Your task to perform on an android device: toggle show notifications on the lock screen Image 0: 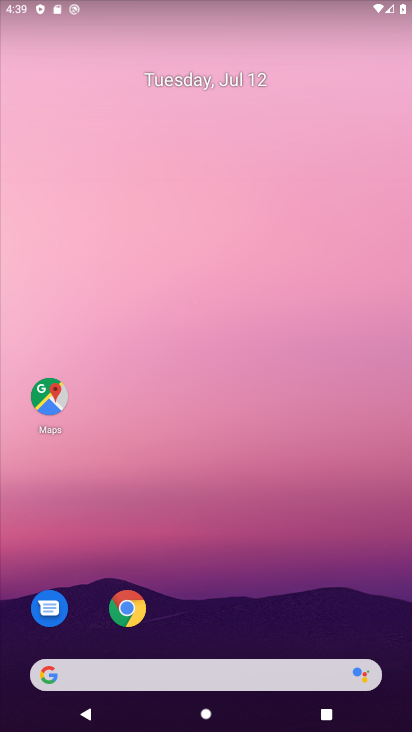
Step 0: drag from (207, 633) to (283, 118)
Your task to perform on an android device: toggle show notifications on the lock screen Image 1: 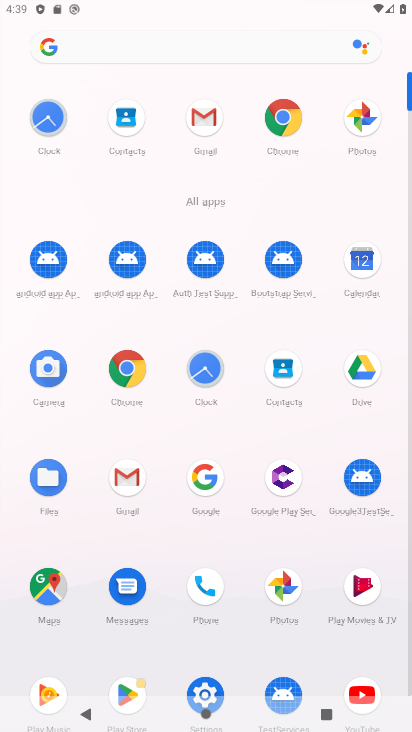
Step 1: click (207, 674)
Your task to perform on an android device: toggle show notifications on the lock screen Image 2: 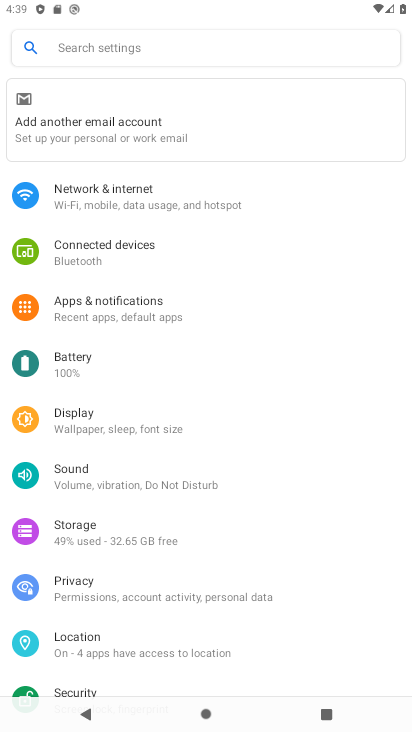
Step 2: click (173, 302)
Your task to perform on an android device: toggle show notifications on the lock screen Image 3: 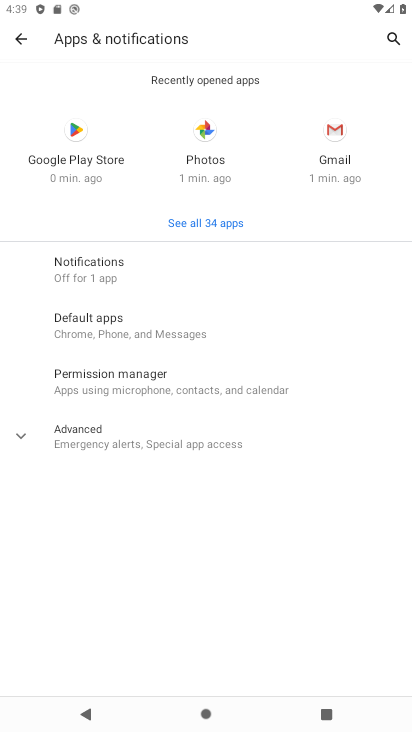
Step 3: click (119, 292)
Your task to perform on an android device: toggle show notifications on the lock screen Image 4: 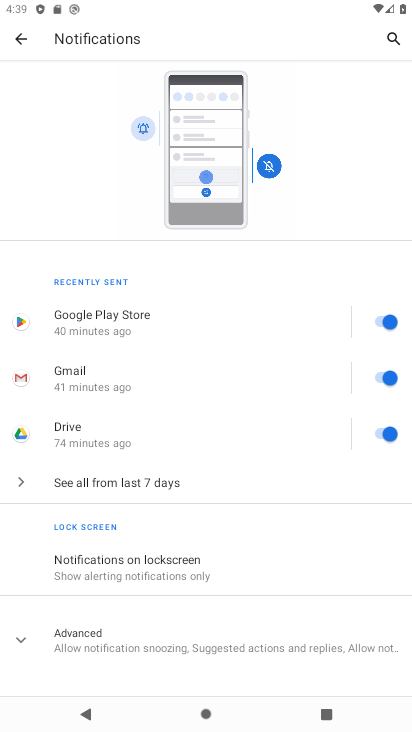
Step 4: click (237, 562)
Your task to perform on an android device: toggle show notifications on the lock screen Image 5: 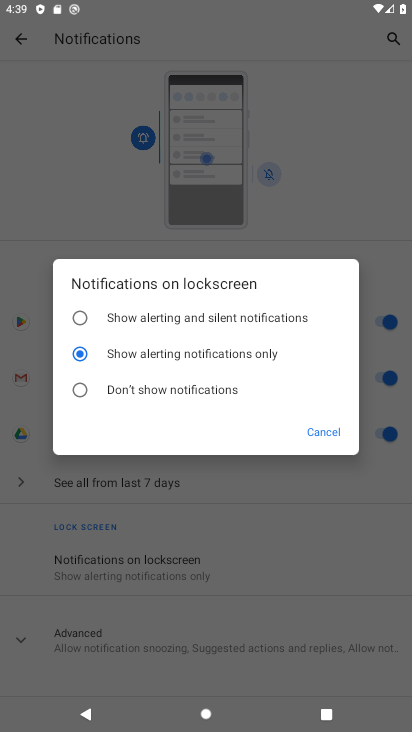
Step 5: click (182, 314)
Your task to perform on an android device: toggle show notifications on the lock screen Image 6: 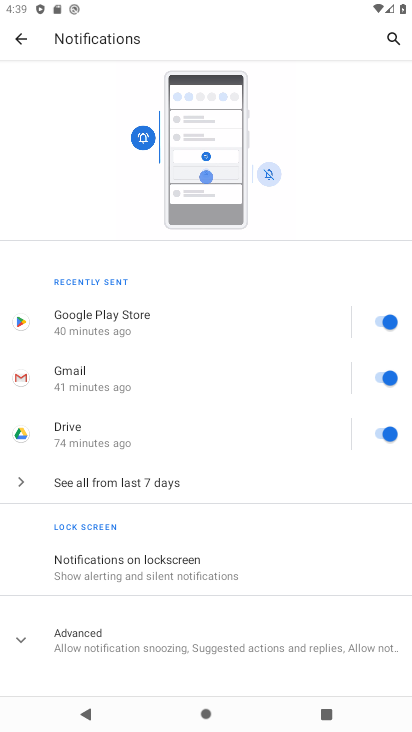
Step 6: task complete